Your task to perform on an android device: Do I have any events today? Image 0: 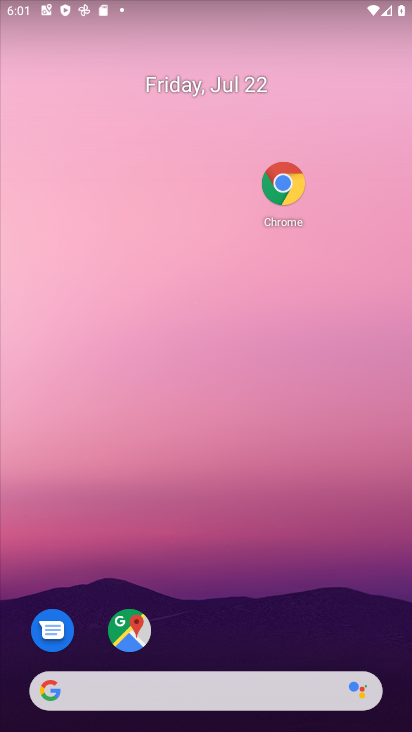
Step 0: drag from (192, 553) to (203, 19)
Your task to perform on an android device: Do I have any events today? Image 1: 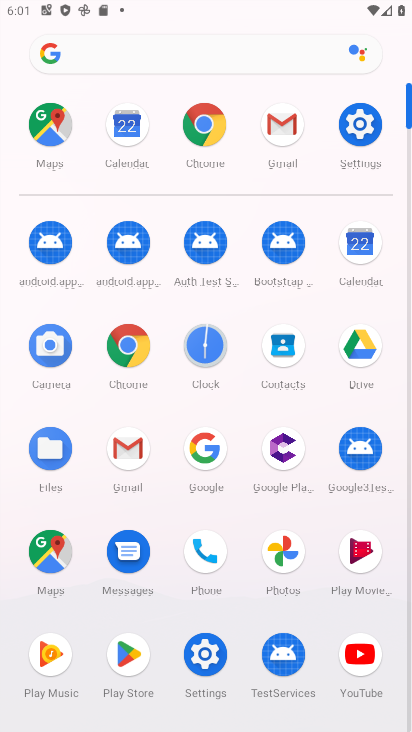
Step 1: click (356, 238)
Your task to perform on an android device: Do I have any events today? Image 2: 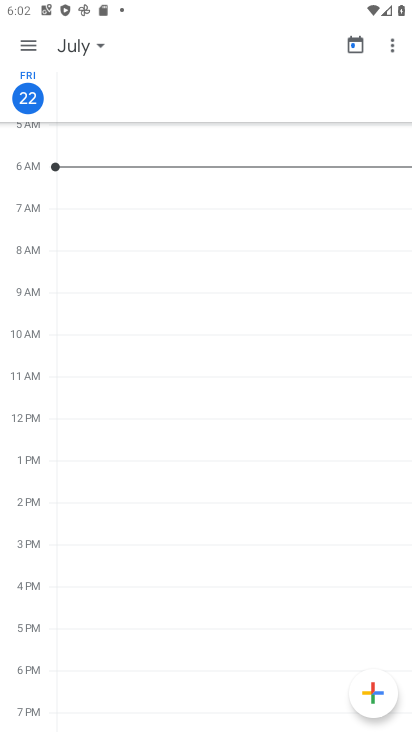
Step 2: task complete